Your task to perform on an android device: Open Chrome and go to settings Image 0: 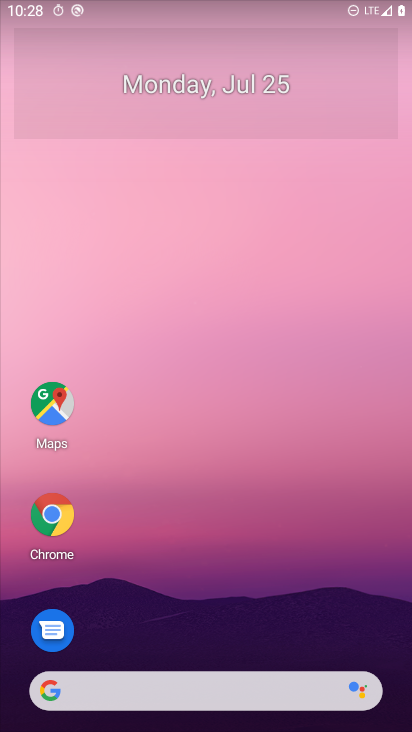
Step 0: drag from (61, 609) to (301, 79)
Your task to perform on an android device: Open Chrome and go to settings Image 1: 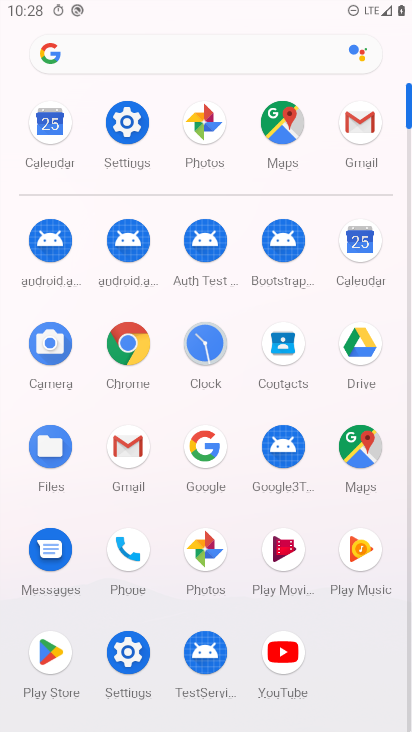
Step 1: click (135, 355)
Your task to perform on an android device: Open Chrome and go to settings Image 2: 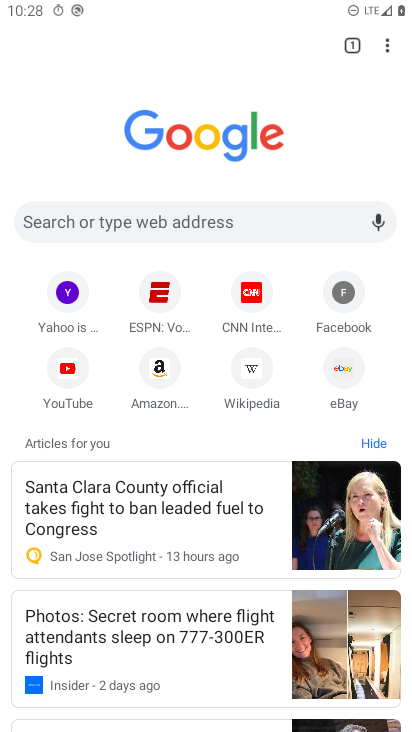
Step 2: click (388, 49)
Your task to perform on an android device: Open Chrome and go to settings Image 3: 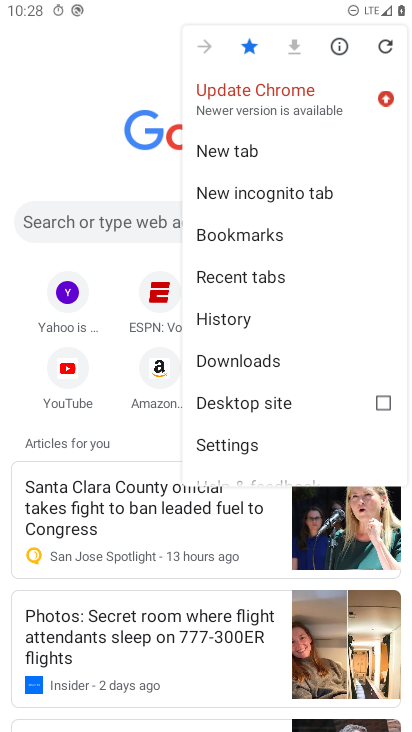
Step 3: click (216, 440)
Your task to perform on an android device: Open Chrome and go to settings Image 4: 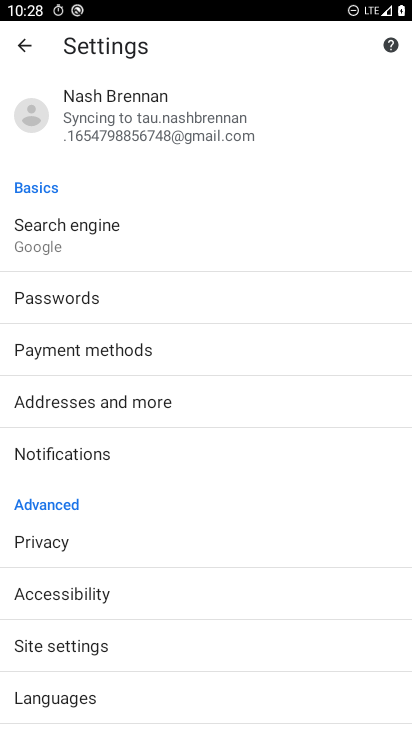
Step 4: task complete